Your task to perform on an android device: Go to Yahoo.com Image 0: 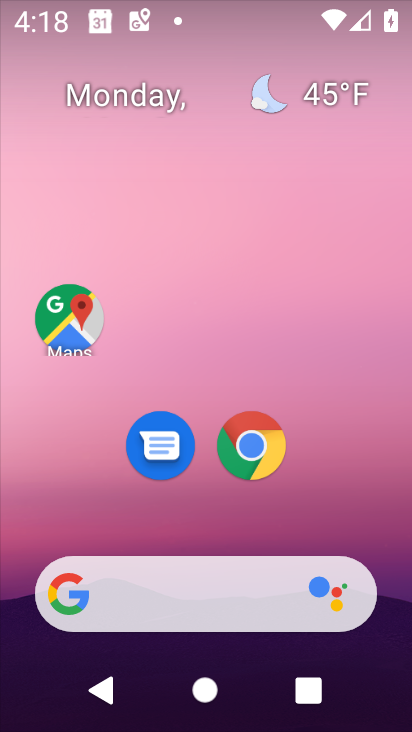
Step 0: click (249, 463)
Your task to perform on an android device: Go to Yahoo.com Image 1: 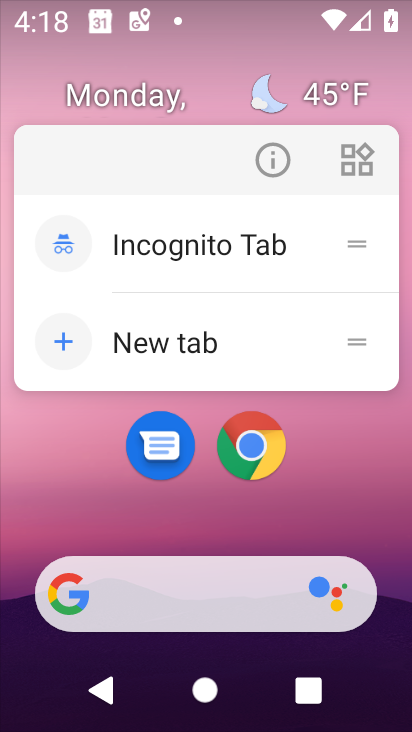
Step 1: click (248, 456)
Your task to perform on an android device: Go to Yahoo.com Image 2: 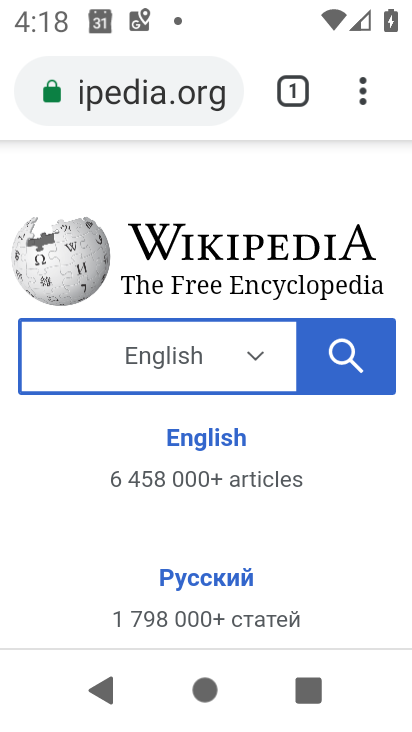
Step 2: click (141, 85)
Your task to perform on an android device: Go to Yahoo.com Image 3: 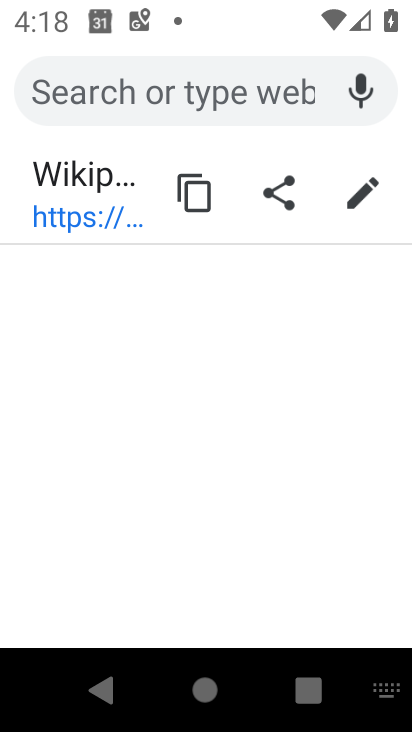
Step 3: type "yahoo.com"
Your task to perform on an android device: Go to Yahoo.com Image 4: 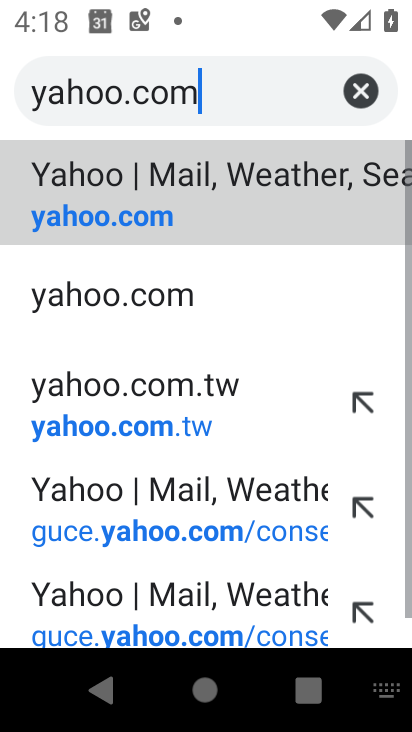
Step 4: click (139, 187)
Your task to perform on an android device: Go to Yahoo.com Image 5: 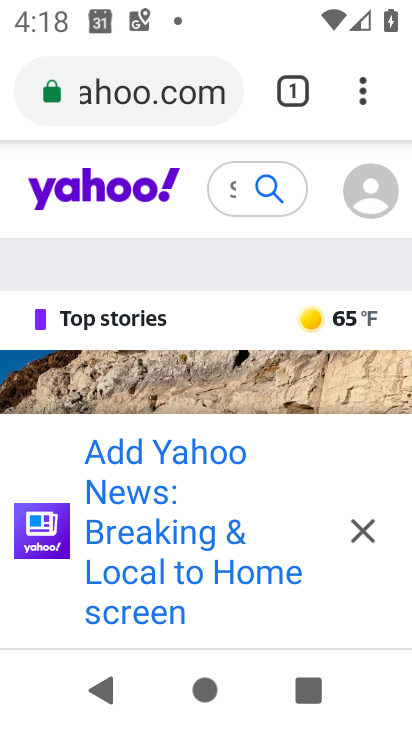
Step 5: task complete